Your task to perform on an android device: Open the phone app and click the voicemail tab. Image 0: 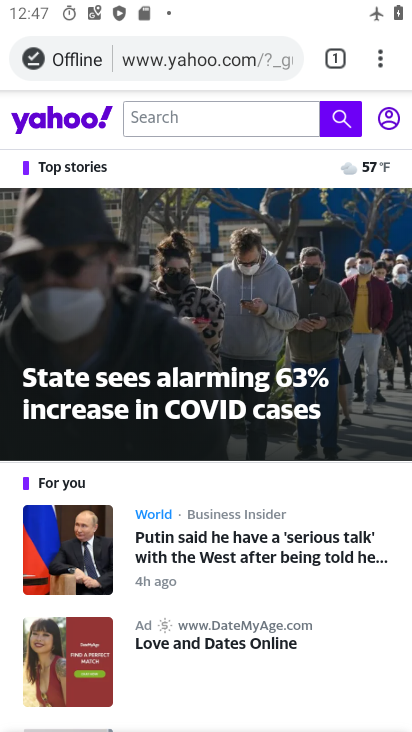
Step 0: press home button
Your task to perform on an android device: Open the phone app and click the voicemail tab. Image 1: 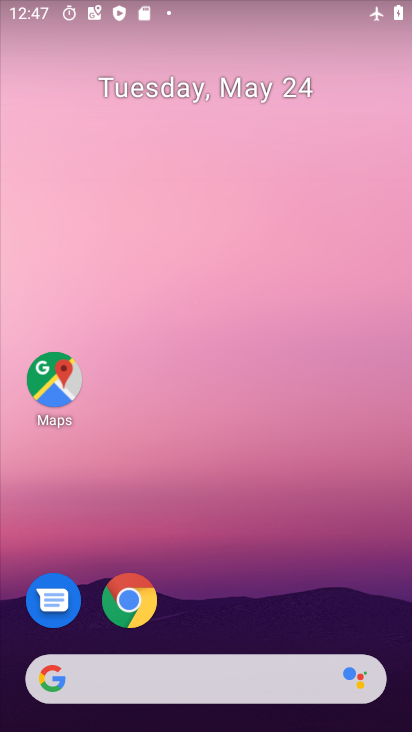
Step 1: drag from (238, 570) to (239, 146)
Your task to perform on an android device: Open the phone app and click the voicemail tab. Image 2: 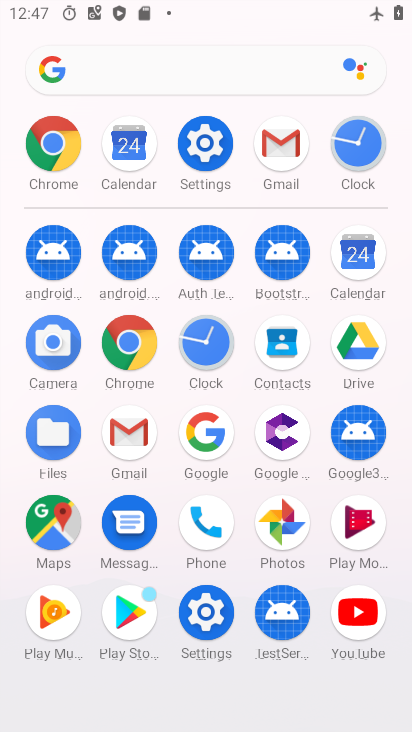
Step 2: click (206, 512)
Your task to perform on an android device: Open the phone app and click the voicemail tab. Image 3: 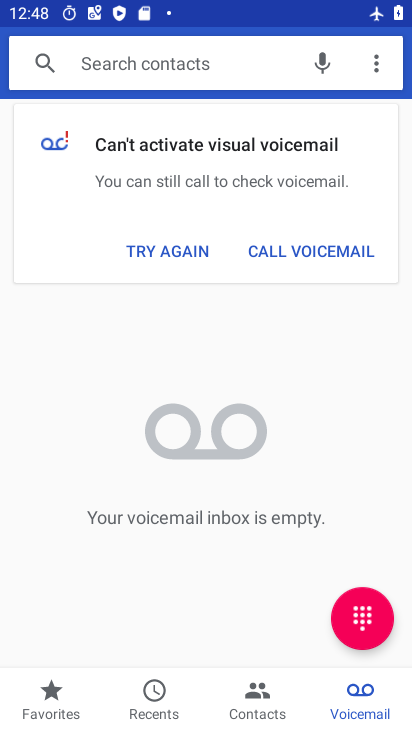
Step 3: task complete